Your task to perform on an android device: change the clock style Image 0: 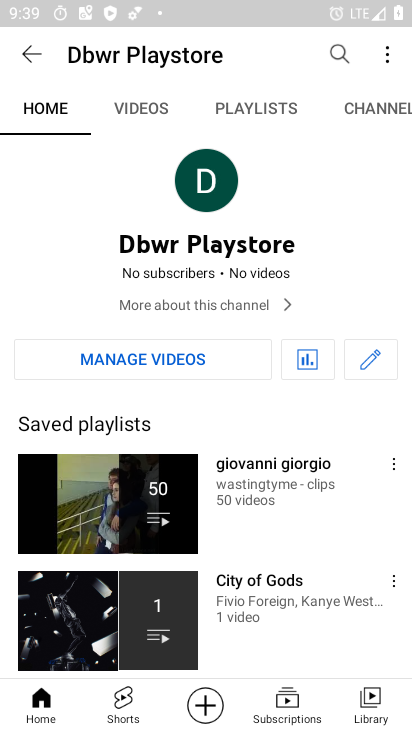
Step 0: press home button
Your task to perform on an android device: change the clock style Image 1: 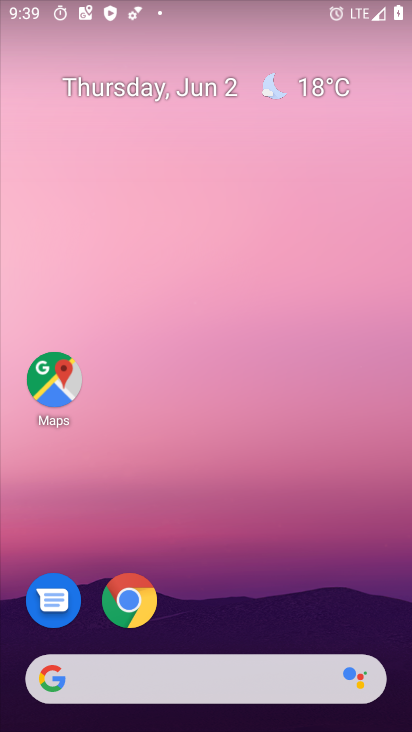
Step 1: drag from (337, 604) to (346, 185)
Your task to perform on an android device: change the clock style Image 2: 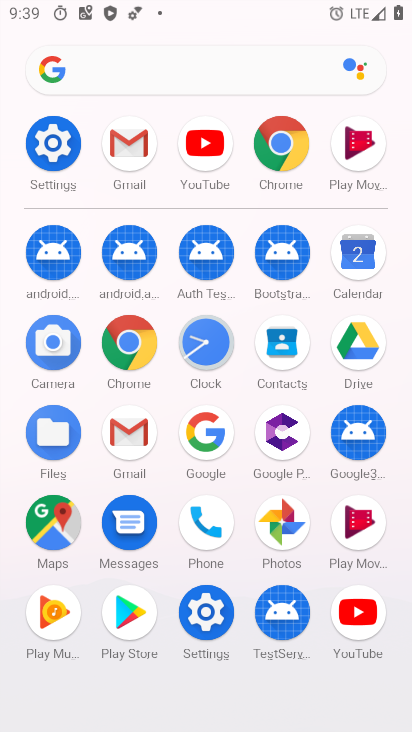
Step 2: click (211, 355)
Your task to perform on an android device: change the clock style Image 3: 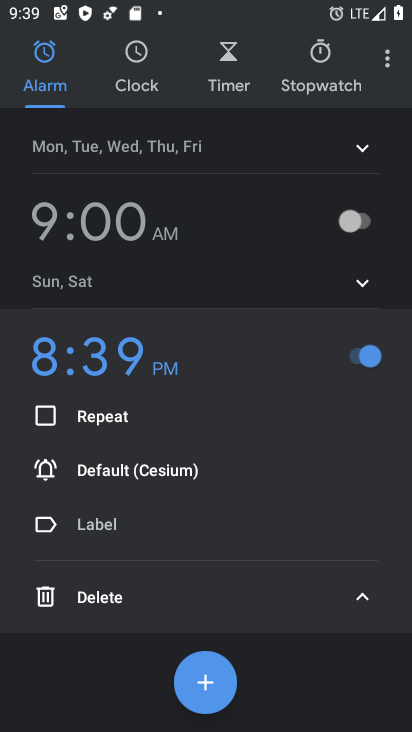
Step 3: click (387, 69)
Your task to perform on an android device: change the clock style Image 4: 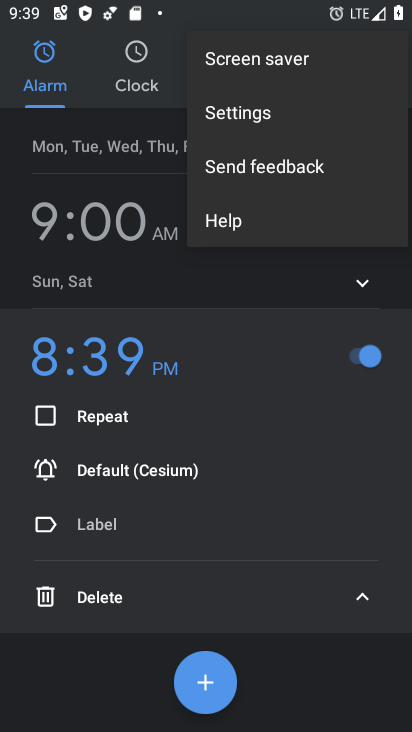
Step 4: click (282, 114)
Your task to perform on an android device: change the clock style Image 5: 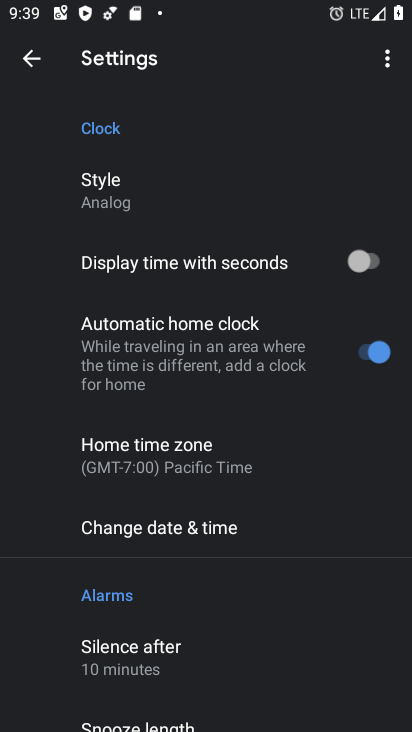
Step 5: drag from (331, 573) to (340, 396)
Your task to perform on an android device: change the clock style Image 6: 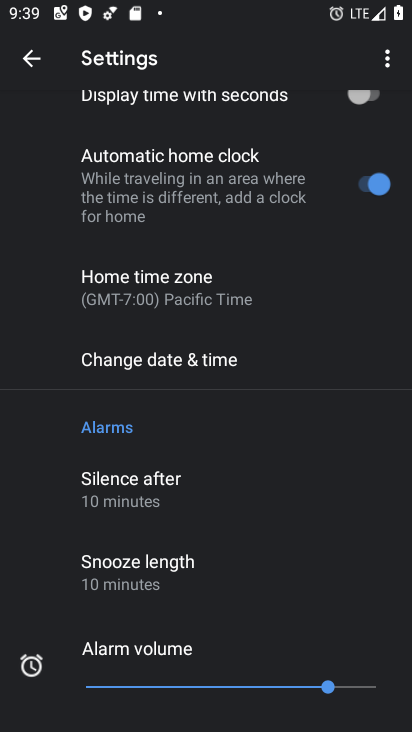
Step 6: drag from (304, 576) to (323, 315)
Your task to perform on an android device: change the clock style Image 7: 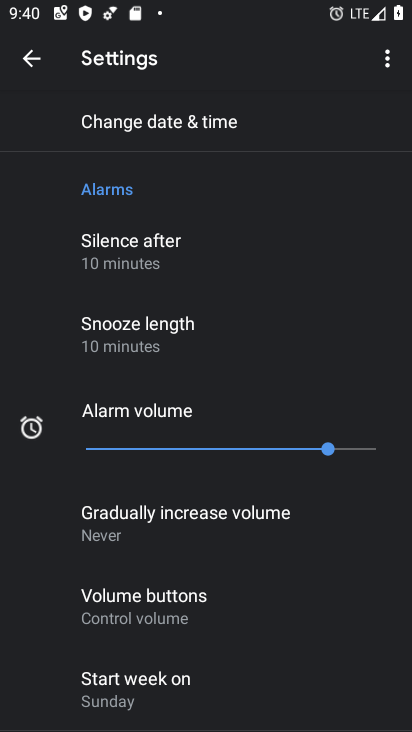
Step 7: drag from (318, 605) to (311, 346)
Your task to perform on an android device: change the clock style Image 8: 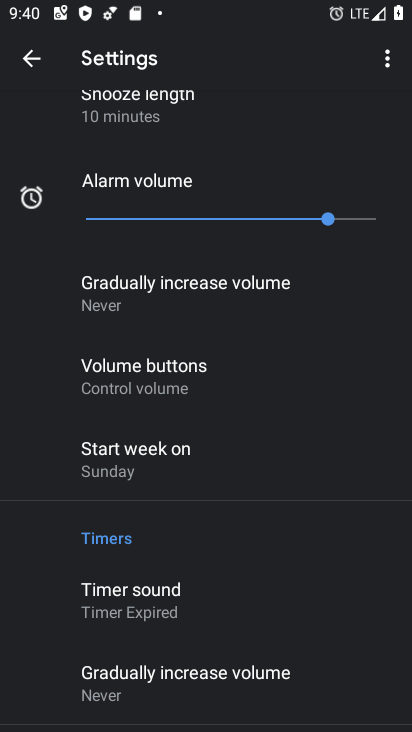
Step 8: drag from (313, 491) to (312, 335)
Your task to perform on an android device: change the clock style Image 9: 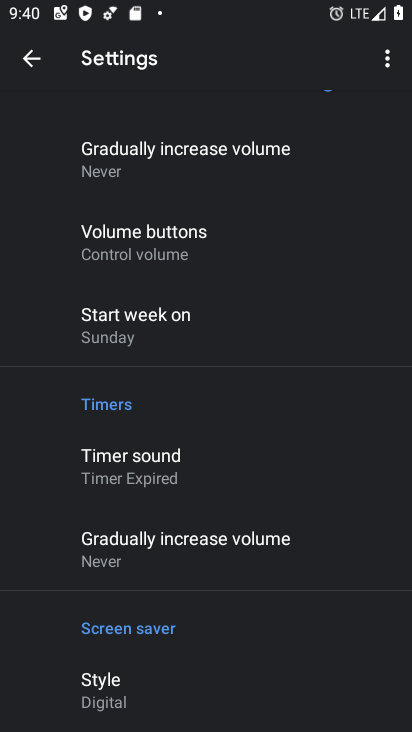
Step 9: drag from (341, 517) to (344, 348)
Your task to perform on an android device: change the clock style Image 10: 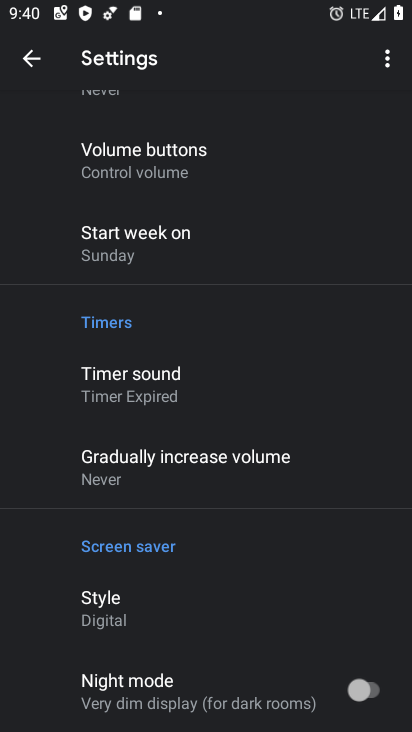
Step 10: drag from (346, 268) to (358, 419)
Your task to perform on an android device: change the clock style Image 11: 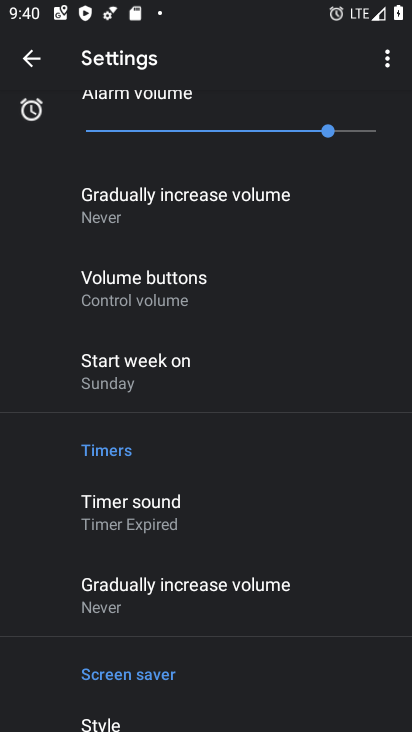
Step 11: drag from (361, 273) to (362, 426)
Your task to perform on an android device: change the clock style Image 12: 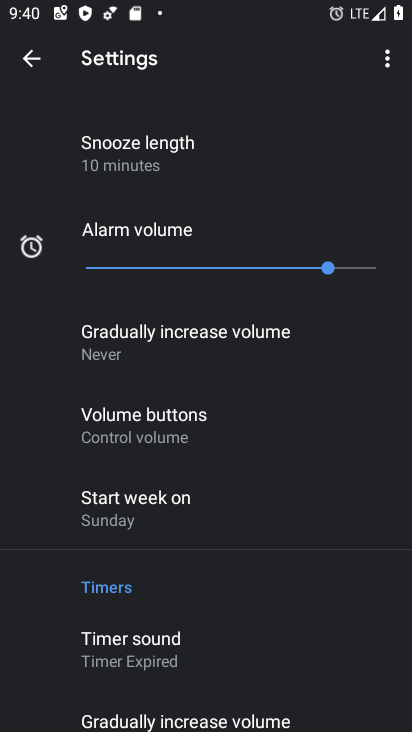
Step 12: drag from (361, 265) to (362, 472)
Your task to perform on an android device: change the clock style Image 13: 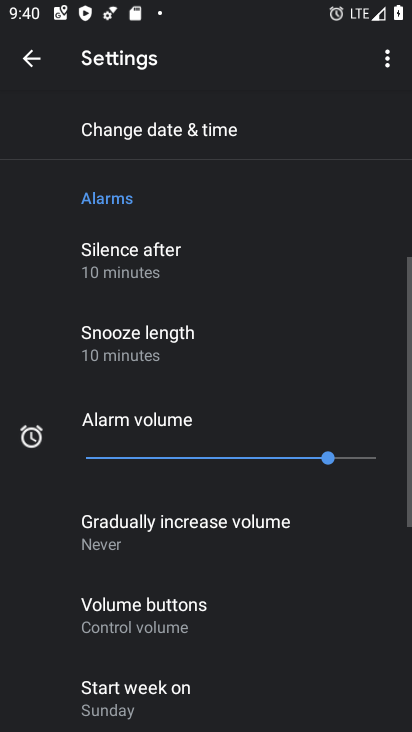
Step 13: drag from (355, 217) to (339, 441)
Your task to perform on an android device: change the clock style Image 14: 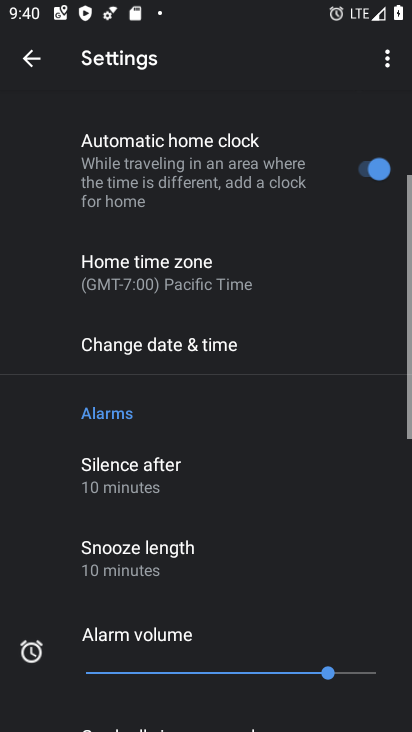
Step 14: drag from (319, 124) to (323, 405)
Your task to perform on an android device: change the clock style Image 15: 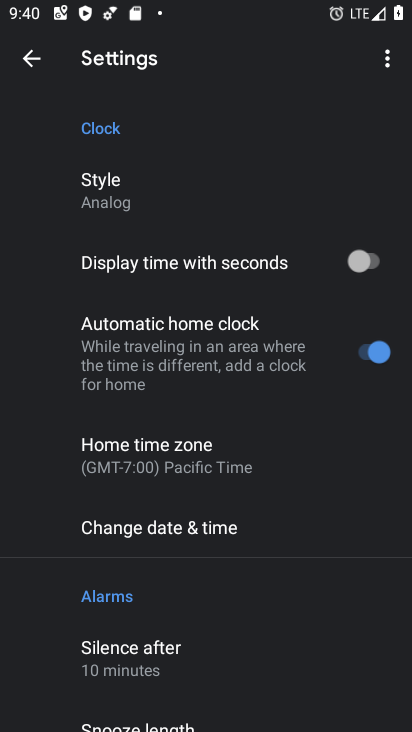
Step 15: click (114, 189)
Your task to perform on an android device: change the clock style Image 16: 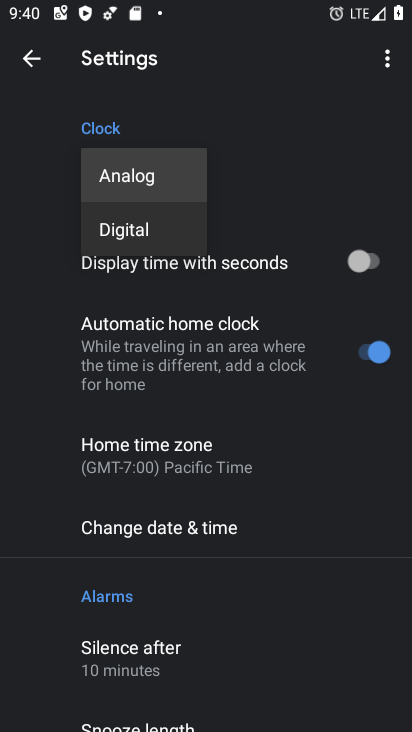
Step 16: click (150, 231)
Your task to perform on an android device: change the clock style Image 17: 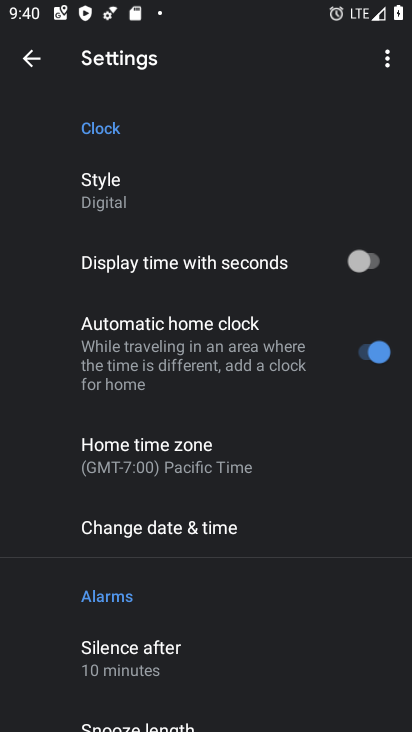
Step 17: task complete